Your task to perform on an android device: turn off sleep mode Image 0: 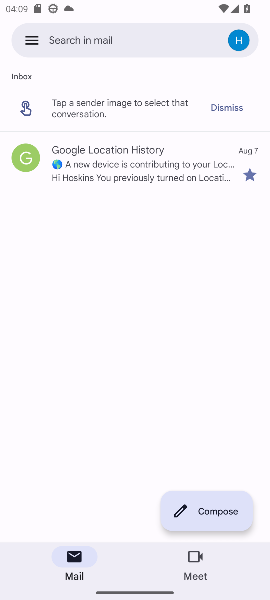
Step 0: press home button
Your task to perform on an android device: turn off sleep mode Image 1: 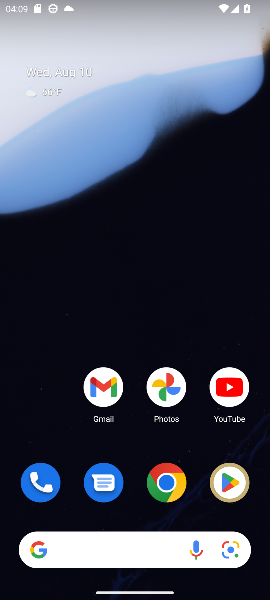
Step 1: drag from (143, 502) to (158, 37)
Your task to perform on an android device: turn off sleep mode Image 2: 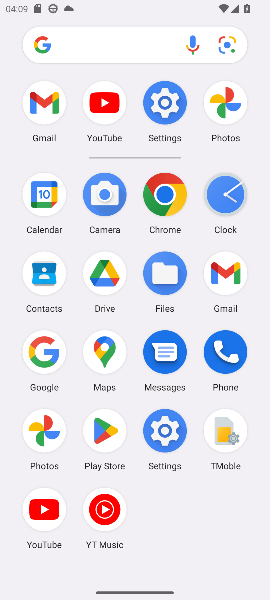
Step 2: click (165, 429)
Your task to perform on an android device: turn off sleep mode Image 3: 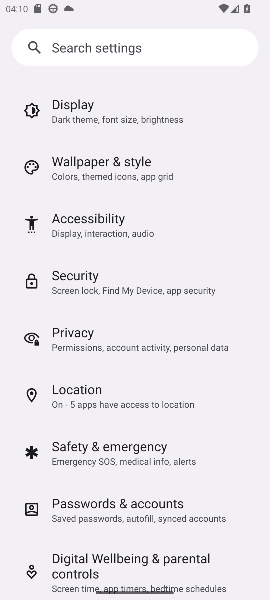
Step 3: drag from (117, 487) to (112, 187)
Your task to perform on an android device: turn off sleep mode Image 4: 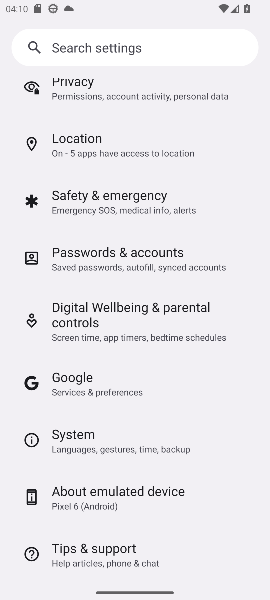
Step 4: drag from (112, 474) to (136, 206)
Your task to perform on an android device: turn off sleep mode Image 5: 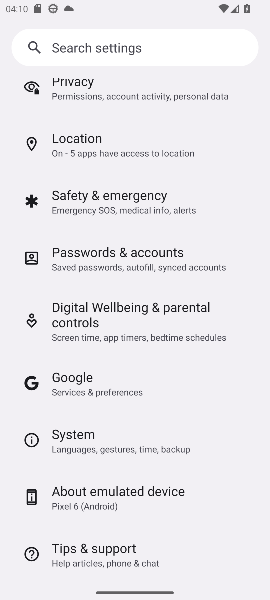
Step 5: drag from (127, 131) to (57, 496)
Your task to perform on an android device: turn off sleep mode Image 6: 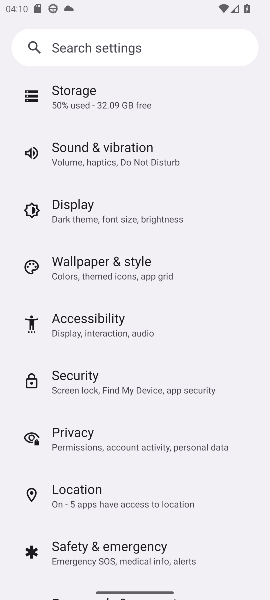
Step 6: click (78, 207)
Your task to perform on an android device: turn off sleep mode Image 7: 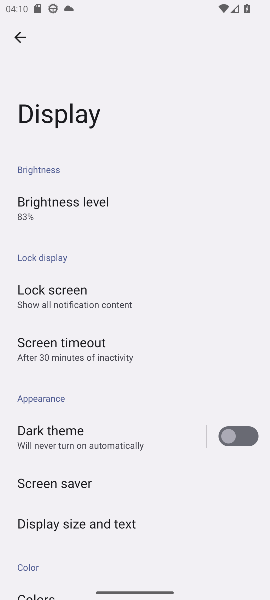
Step 7: task complete